Your task to perform on an android device: Go to notification settings Image 0: 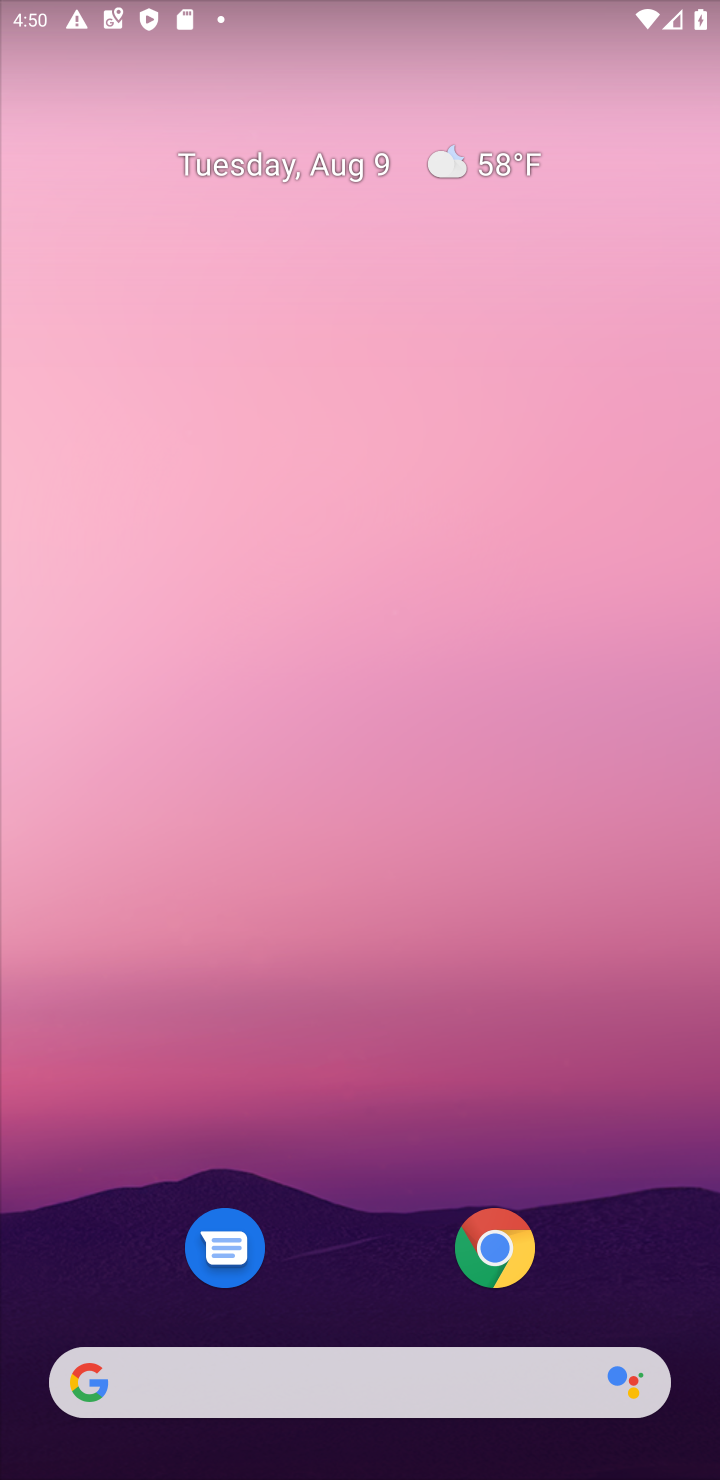
Step 0: drag from (343, 1177) to (276, 261)
Your task to perform on an android device: Go to notification settings Image 1: 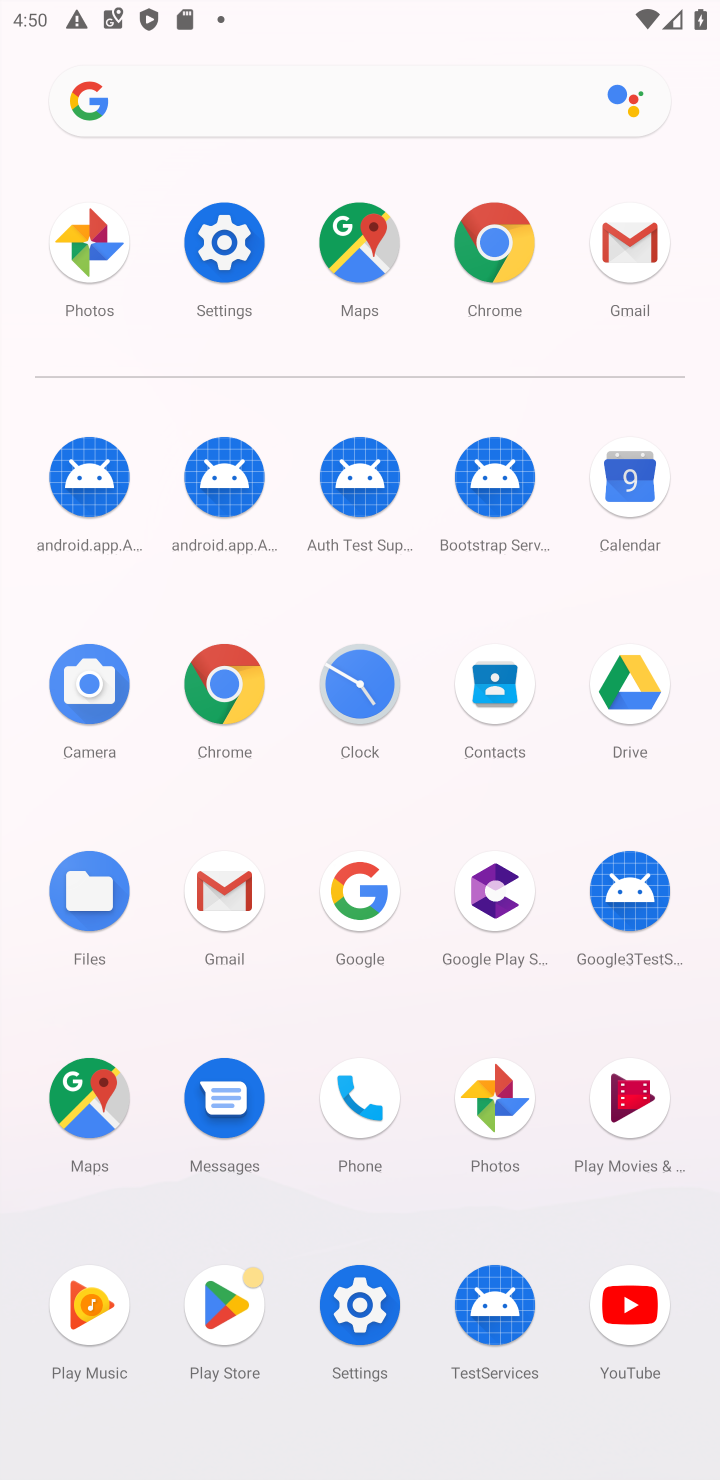
Step 1: click (356, 1299)
Your task to perform on an android device: Go to notification settings Image 2: 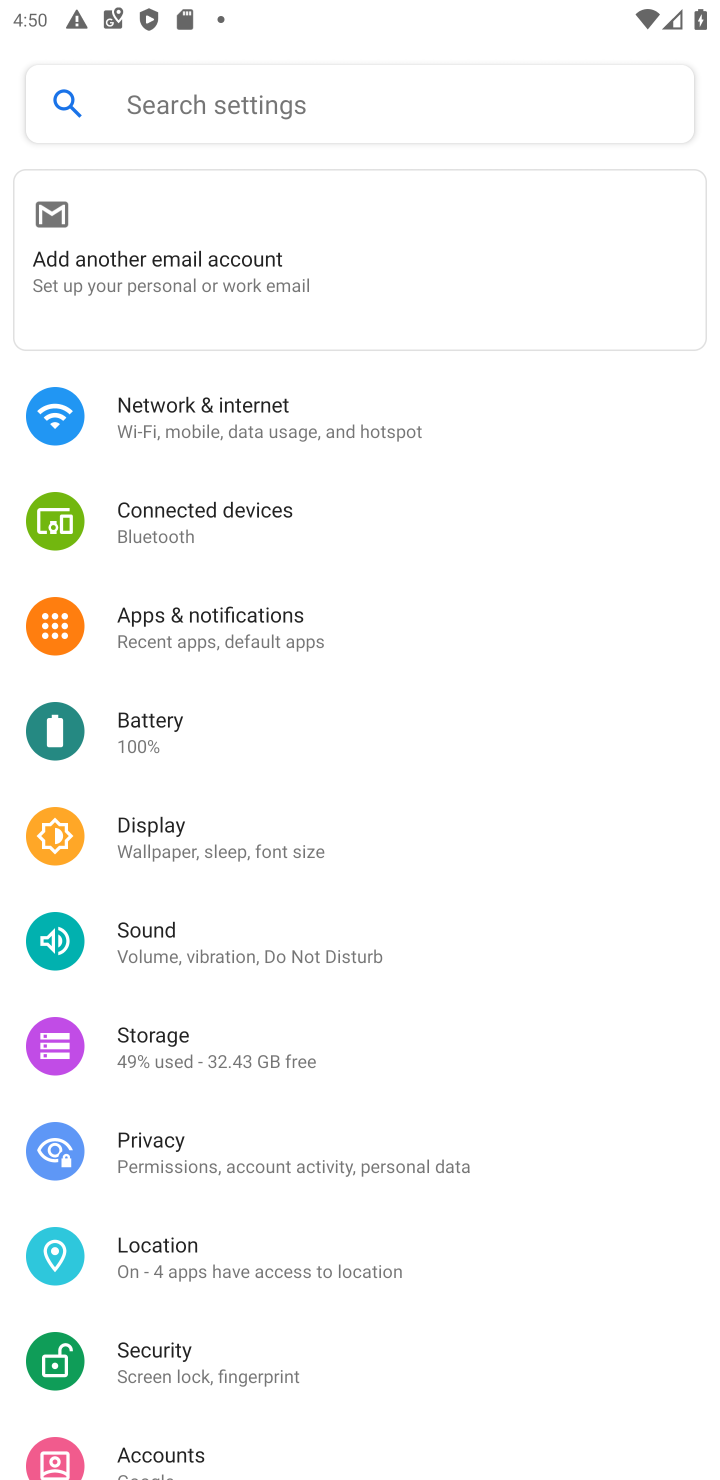
Step 2: click (201, 610)
Your task to perform on an android device: Go to notification settings Image 3: 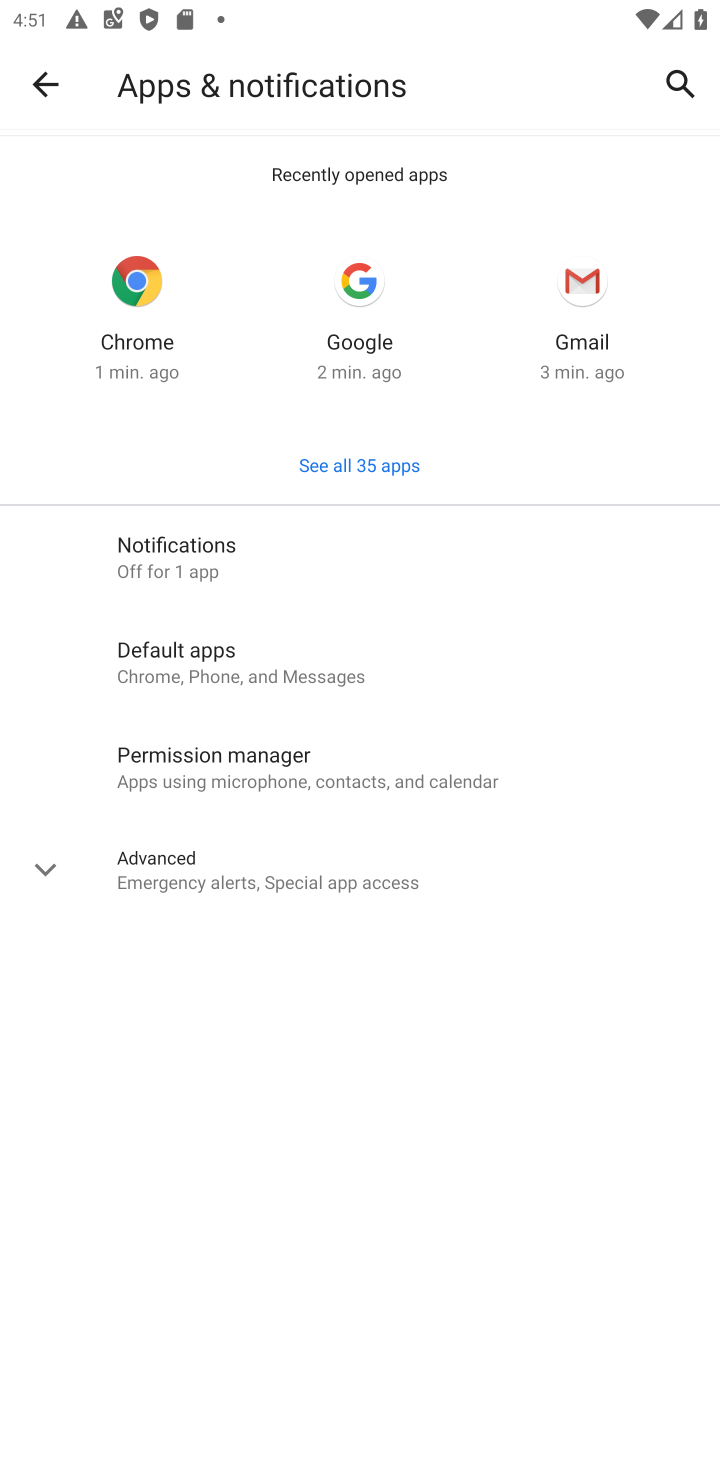
Step 3: click (202, 580)
Your task to perform on an android device: Go to notification settings Image 4: 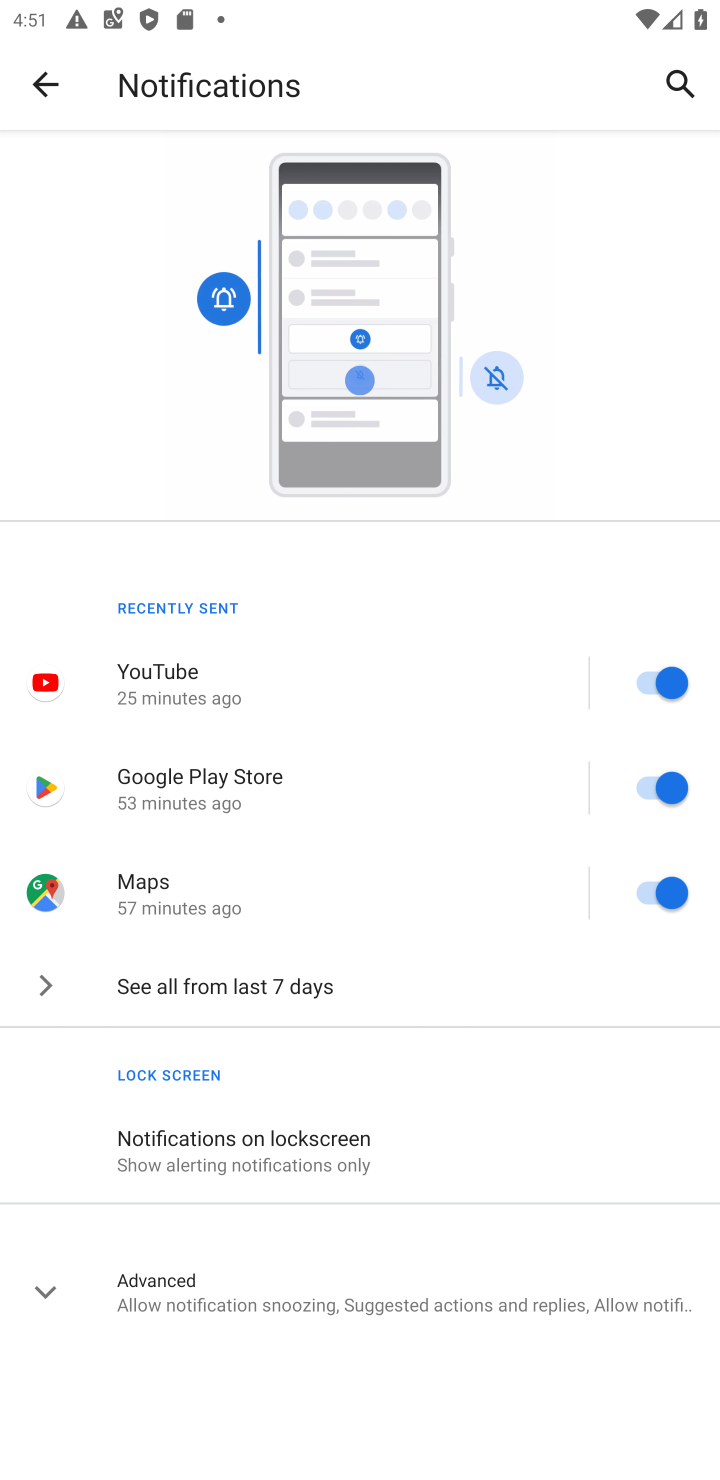
Step 4: task complete